Your task to perform on an android device: turn off data saver in the chrome app Image 0: 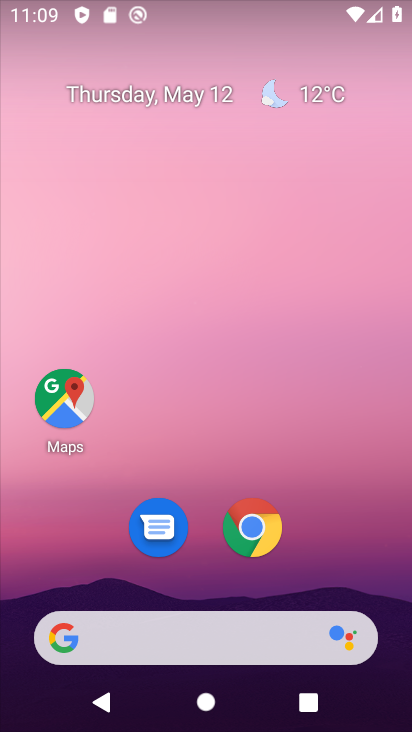
Step 0: press home button
Your task to perform on an android device: turn off data saver in the chrome app Image 1: 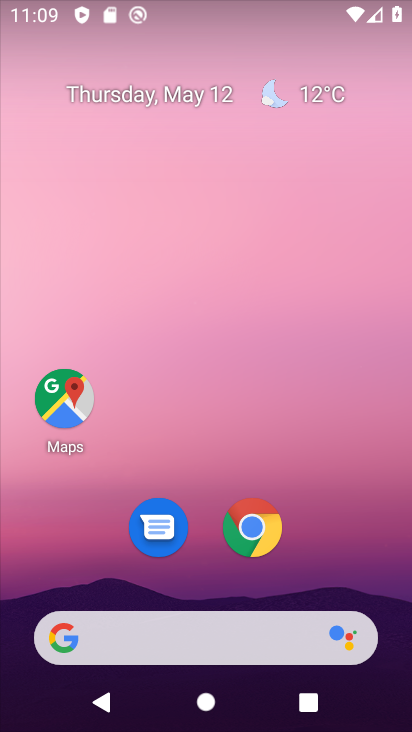
Step 1: click (241, 530)
Your task to perform on an android device: turn off data saver in the chrome app Image 2: 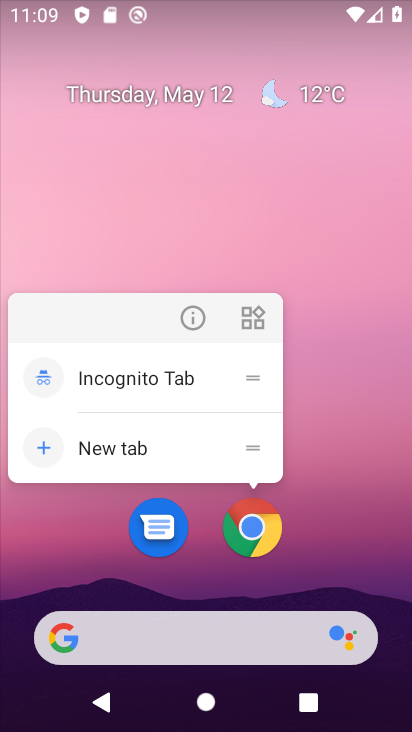
Step 2: click (254, 530)
Your task to perform on an android device: turn off data saver in the chrome app Image 3: 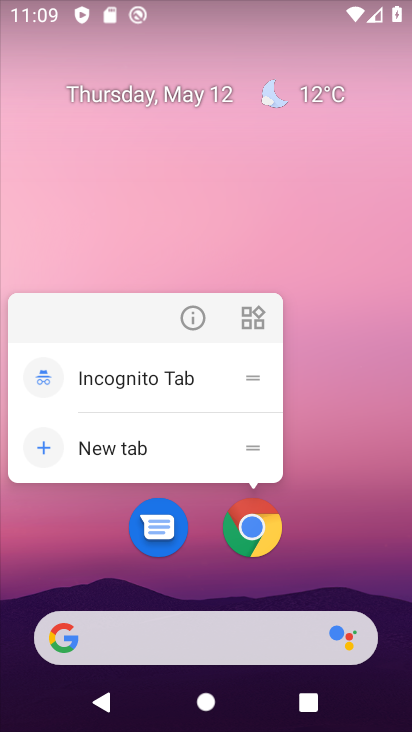
Step 3: click (250, 523)
Your task to perform on an android device: turn off data saver in the chrome app Image 4: 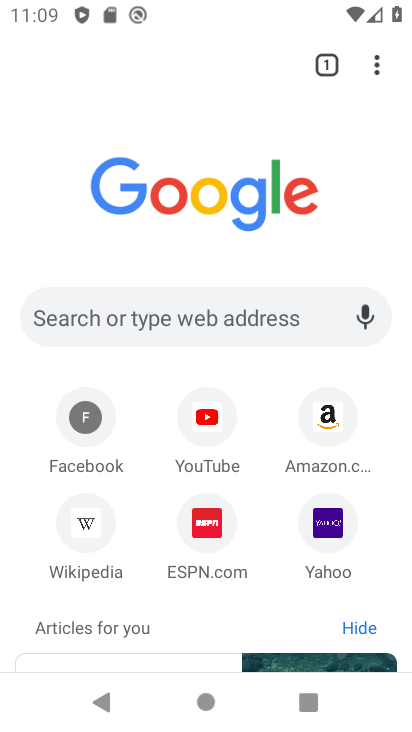
Step 4: click (373, 63)
Your task to perform on an android device: turn off data saver in the chrome app Image 5: 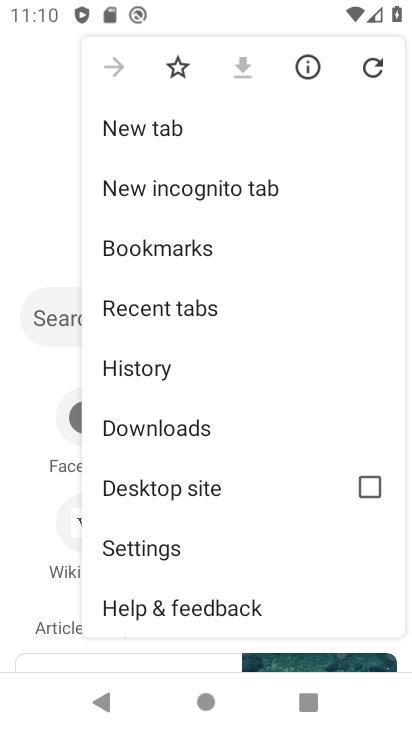
Step 5: click (190, 540)
Your task to perform on an android device: turn off data saver in the chrome app Image 6: 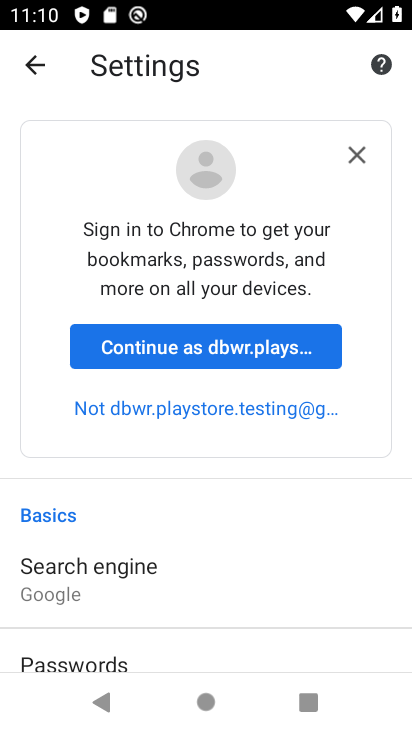
Step 6: drag from (47, 651) to (380, 166)
Your task to perform on an android device: turn off data saver in the chrome app Image 7: 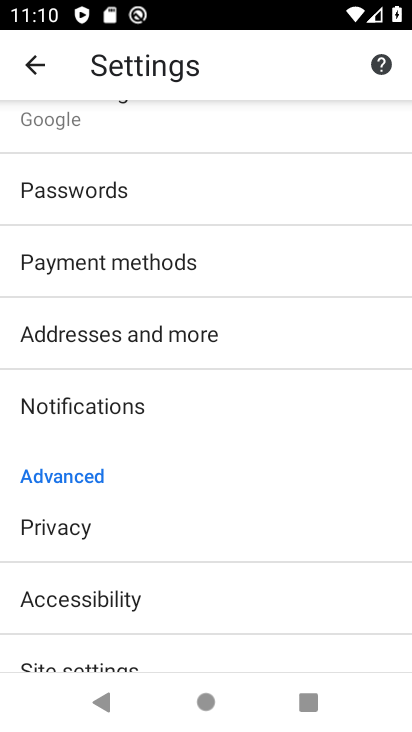
Step 7: drag from (46, 654) to (274, 270)
Your task to perform on an android device: turn off data saver in the chrome app Image 8: 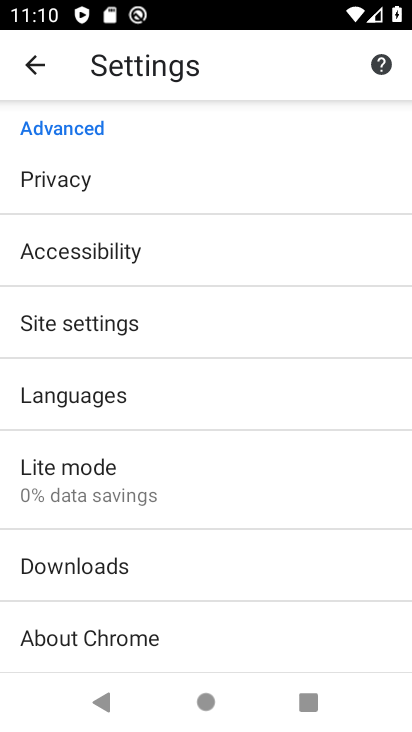
Step 8: click (93, 486)
Your task to perform on an android device: turn off data saver in the chrome app Image 9: 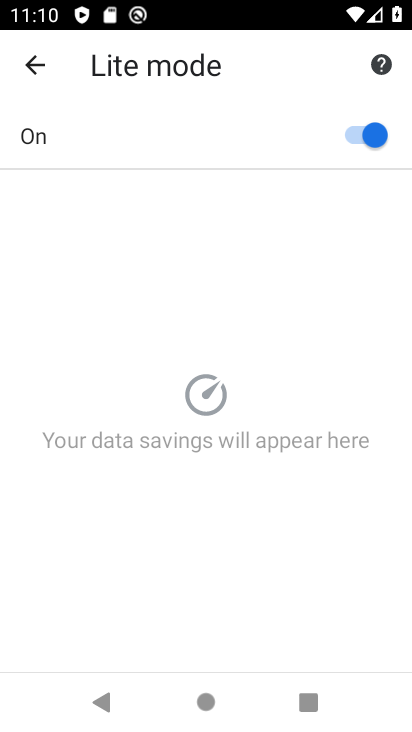
Step 9: click (383, 132)
Your task to perform on an android device: turn off data saver in the chrome app Image 10: 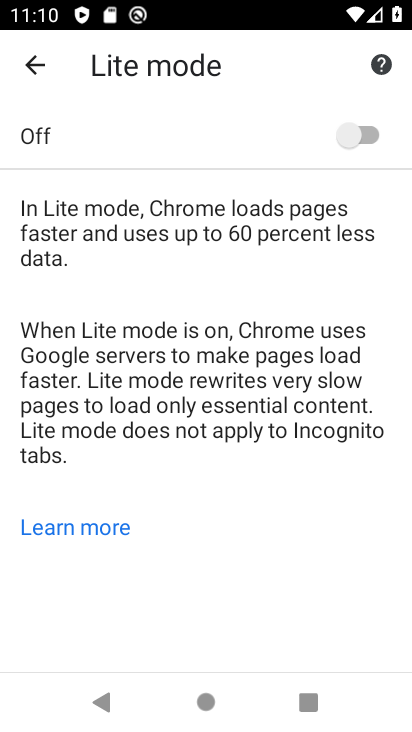
Step 10: task complete